Your task to perform on an android device: Open the web browser Image 0: 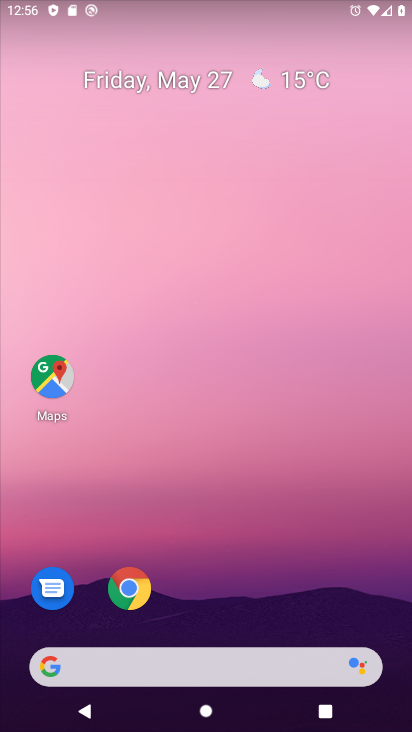
Step 0: click (128, 591)
Your task to perform on an android device: Open the web browser Image 1: 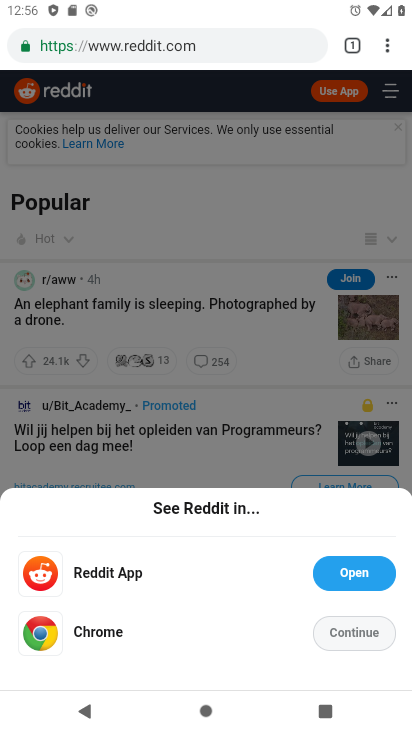
Step 1: click (229, 42)
Your task to perform on an android device: Open the web browser Image 2: 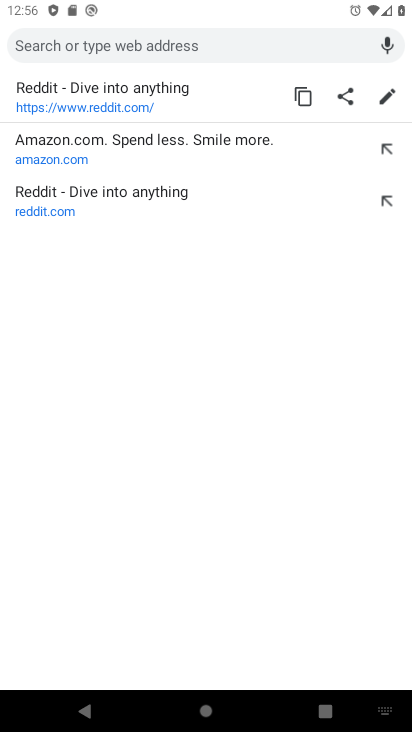
Step 2: task complete